Your task to perform on an android device: toggle location history Image 0: 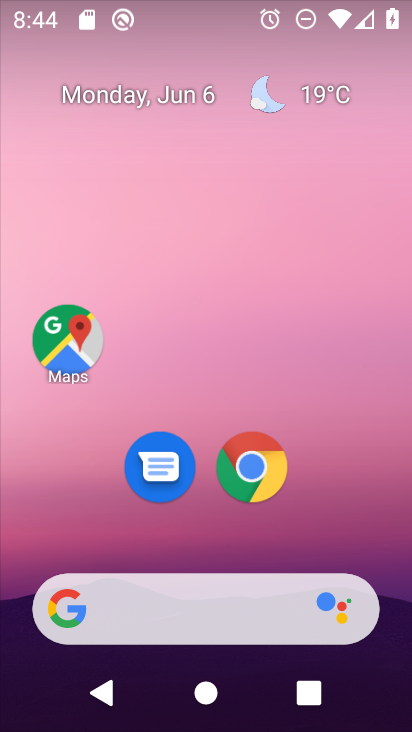
Step 0: drag from (341, 529) to (338, 154)
Your task to perform on an android device: toggle location history Image 1: 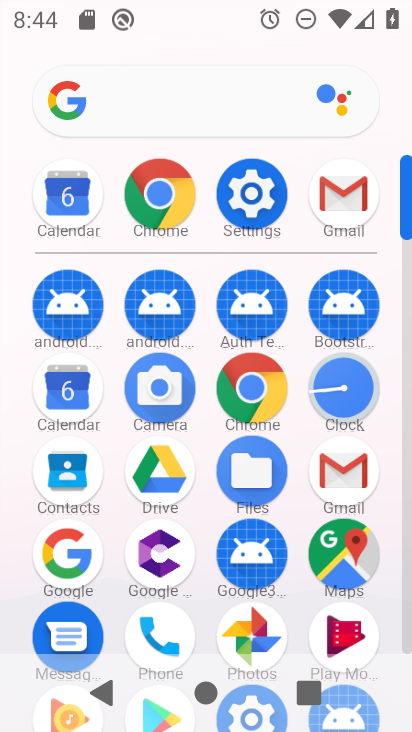
Step 1: click (262, 208)
Your task to perform on an android device: toggle location history Image 2: 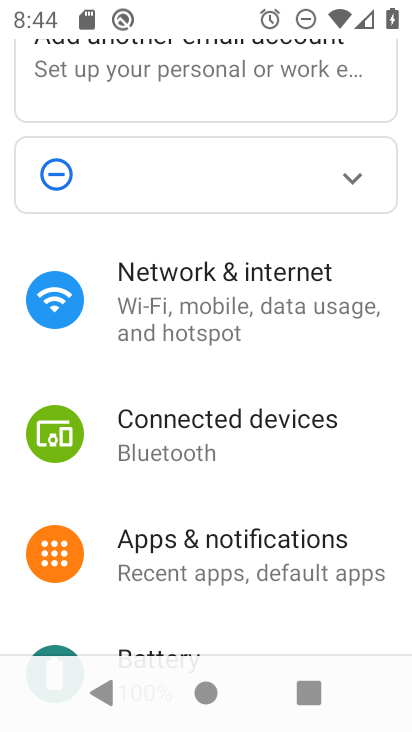
Step 2: drag from (331, 485) to (350, 354)
Your task to perform on an android device: toggle location history Image 3: 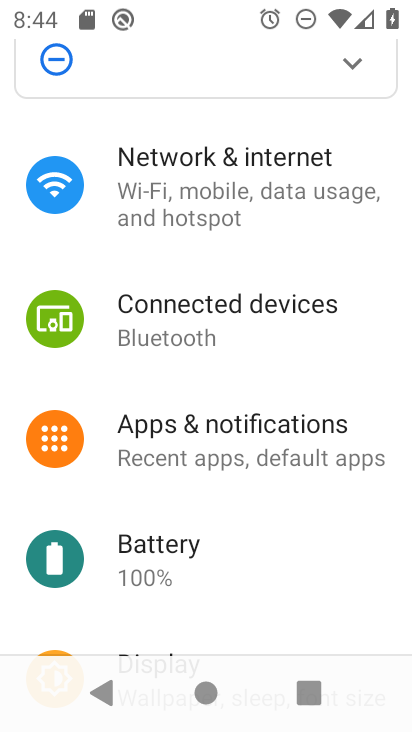
Step 3: drag from (372, 561) to (374, 407)
Your task to perform on an android device: toggle location history Image 4: 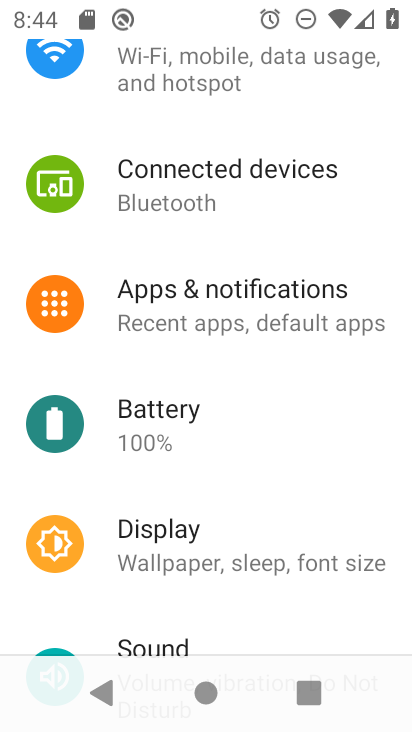
Step 4: drag from (374, 609) to (371, 447)
Your task to perform on an android device: toggle location history Image 5: 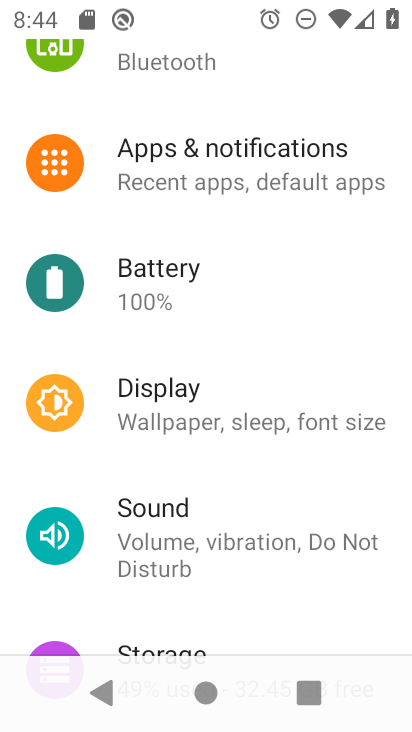
Step 5: drag from (355, 614) to (364, 431)
Your task to perform on an android device: toggle location history Image 6: 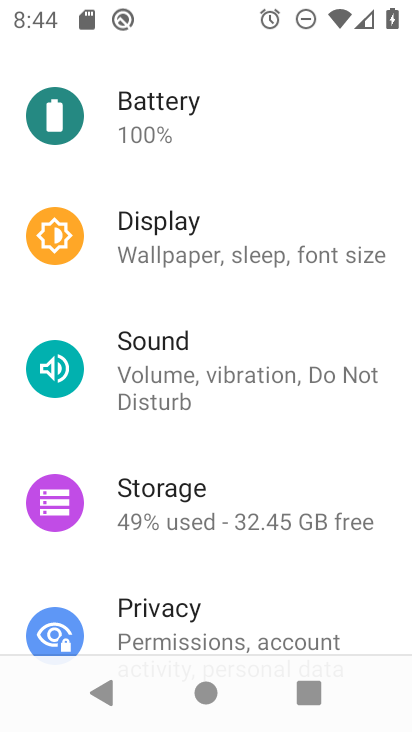
Step 6: drag from (378, 517) to (375, 404)
Your task to perform on an android device: toggle location history Image 7: 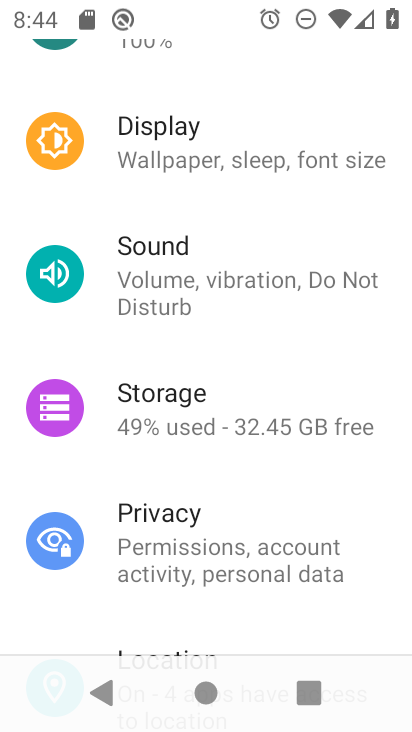
Step 7: drag from (350, 477) to (365, 328)
Your task to perform on an android device: toggle location history Image 8: 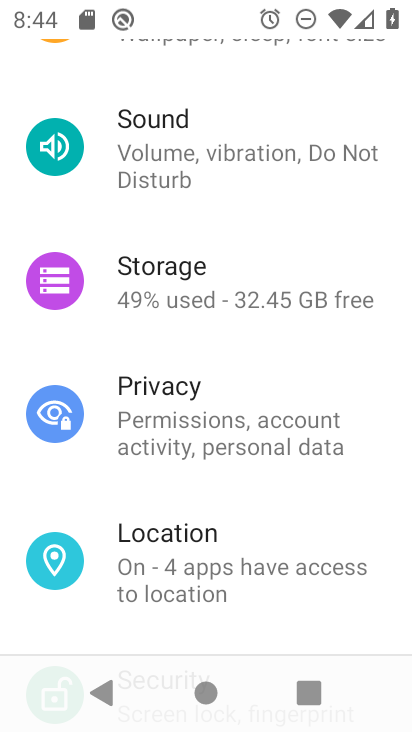
Step 8: drag from (332, 499) to (353, 356)
Your task to perform on an android device: toggle location history Image 9: 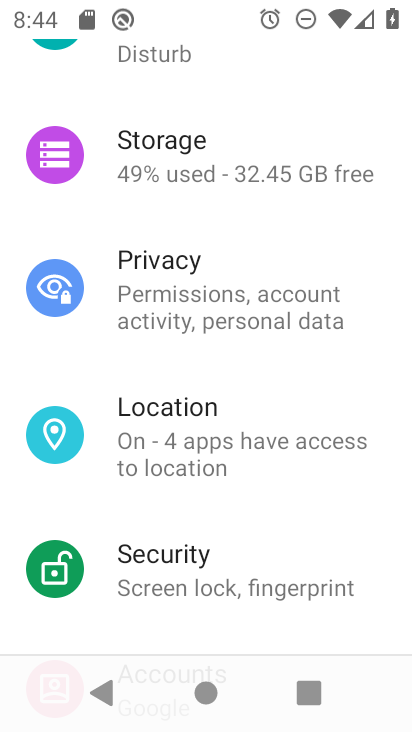
Step 9: drag from (362, 536) to (359, 366)
Your task to perform on an android device: toggle location history Image 10: 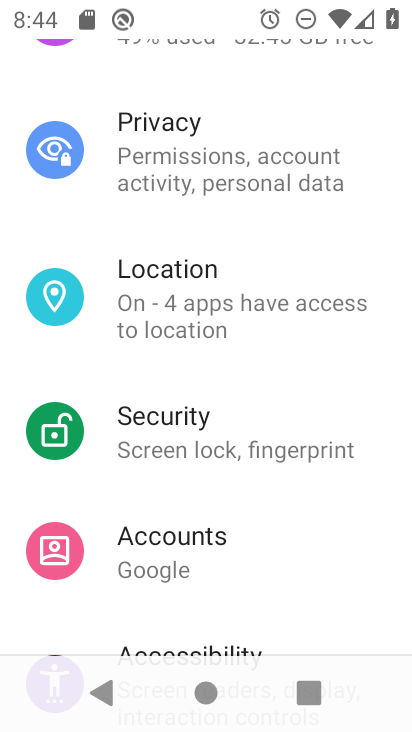
Step 10: drag from (385, 201) to (396, 361)
Your task to perform on an android device: toggle location history Image 11: 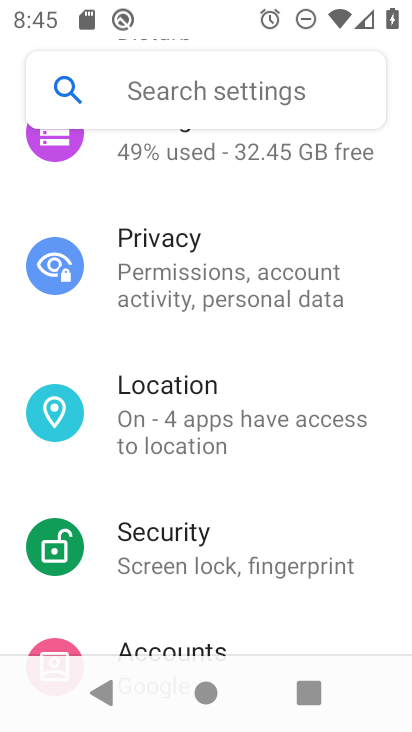
Step 11: drag from (371, 256) to (380, 370)
Your task to perform on an android device: toggle location history Image 12: 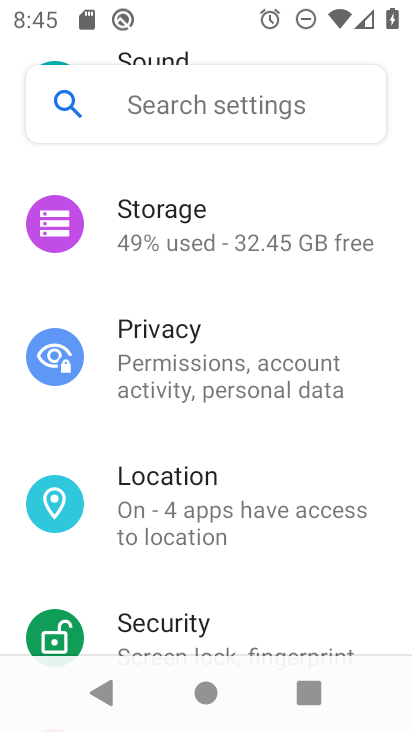
Step 12: click (301, 492)
Your task to perform on an android device: toggle location history Image 13: 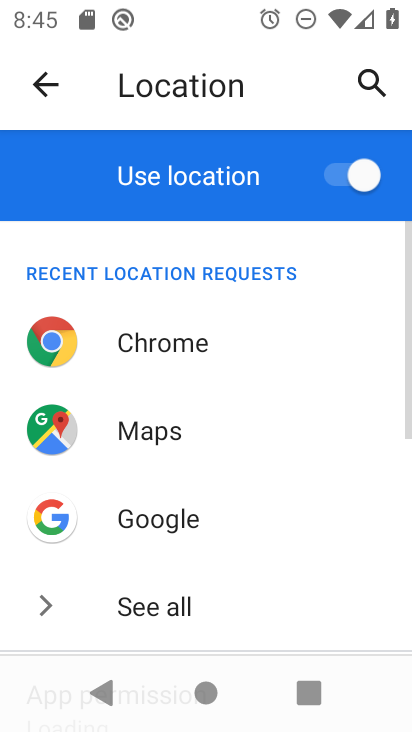
Step 13: drag from (289, 551) to (289, 386)
Your task to perform on an android device: toggle location history Image 14: 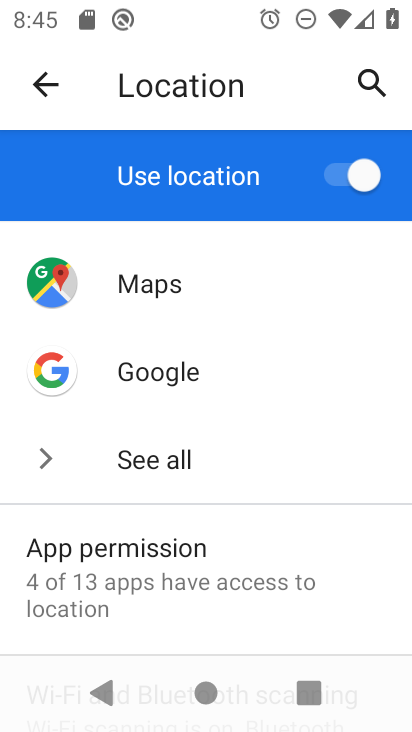
Step 14: drag from (314, 570) to (311, 390)
Your task to perform on an android device: toggle location history Image 15: 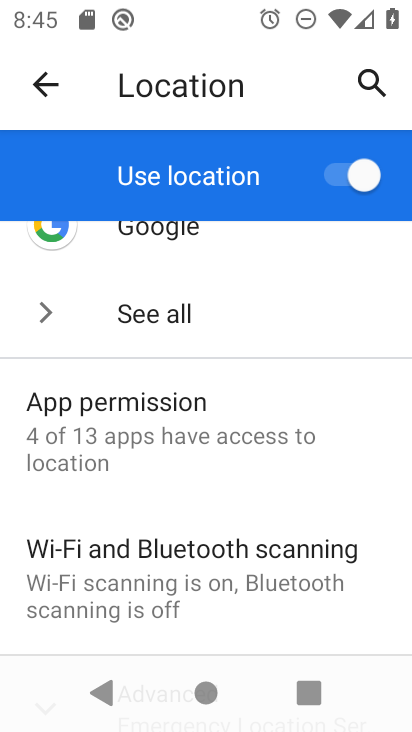
Step 15: drag from (333, 590) to (335, 457)
Your task to perform on an android device: toggle location history Image 16: 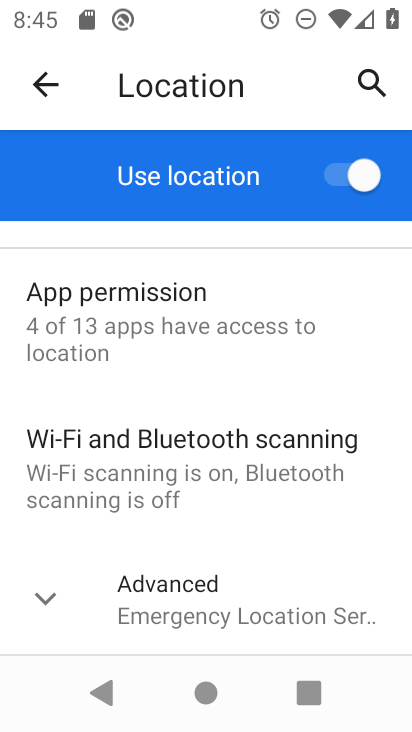
Step 16: click (315, 606)
Your task to perform on an android device: toggle location history Image 17: 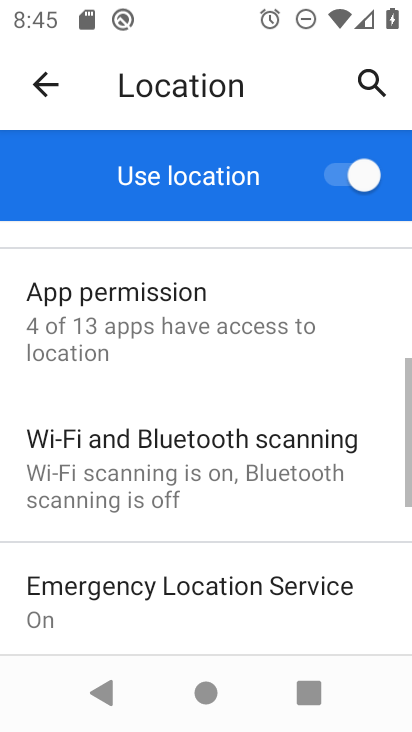
Step 17: drag from (343, 573) to (346, 411)
Your task to perform on an android device: toggle location history Image 18: 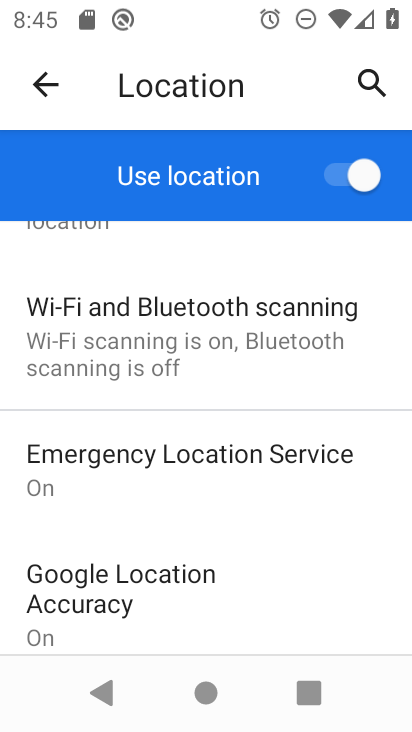
Step 18: drag from (352, 599) to (352, 452)
Your task to perform on an android device: toggle location history Image 19: 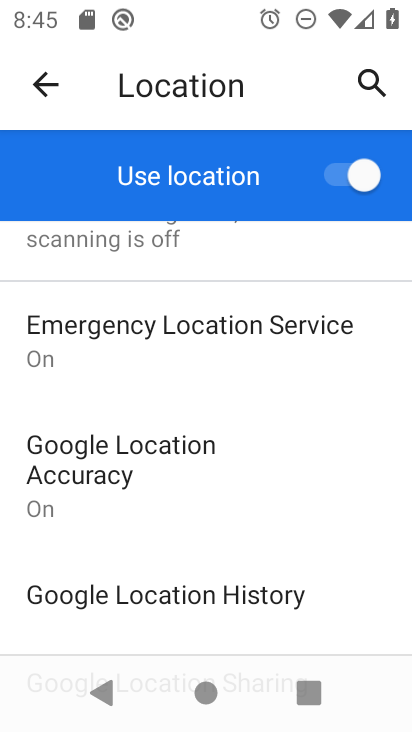
Step 19: drag from (310, 475) to (314, 350)
Your task to perform on an android device: toggle location history Image 20: 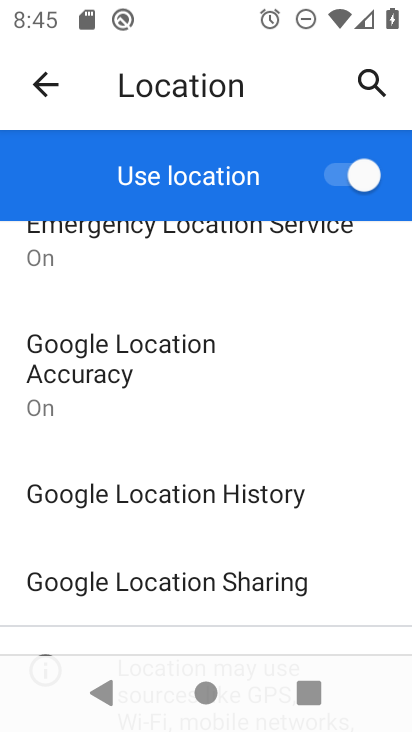
Step 20: click (262, 502)
Your task to perform on an android device: toggle location history Image 21: 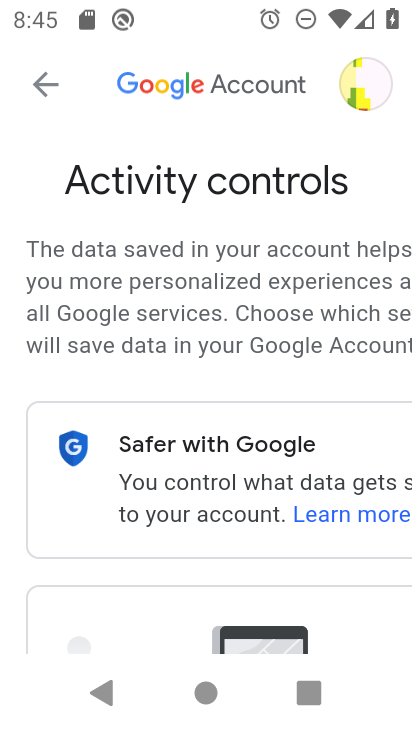
Step 21: drag from (189, 496) to (190, 379)
Your task to perform on an android device: toggle location history Image 22: 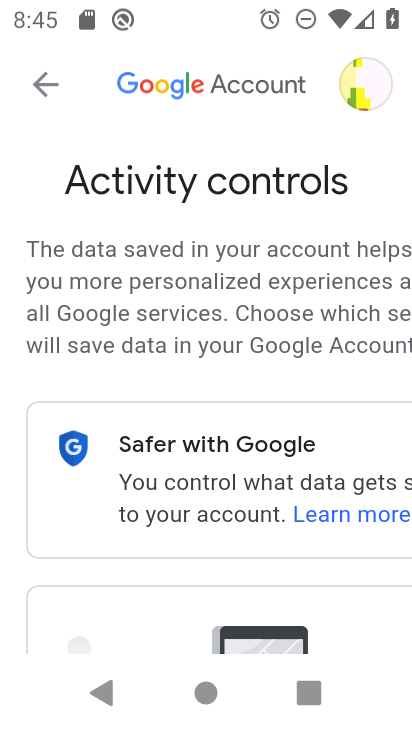
Step 22: drag from (180, 589) to (176, 320)
Your task to perform on an android device: toggle location history Image 23: 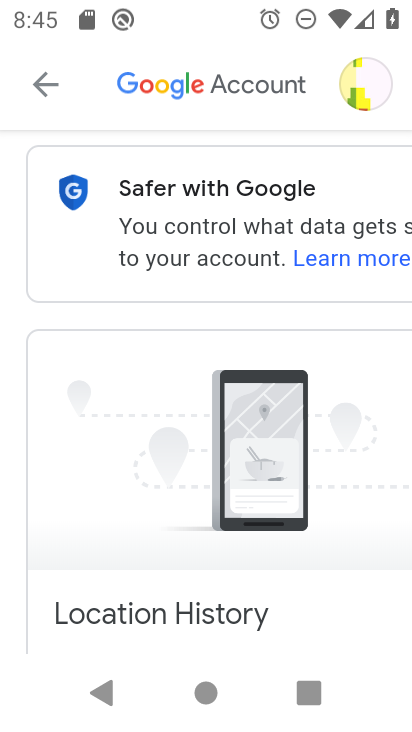
Step 23: drag from (238, 558) to (233, 298)
Your task to perform on an android device: toggle location history Image 24: 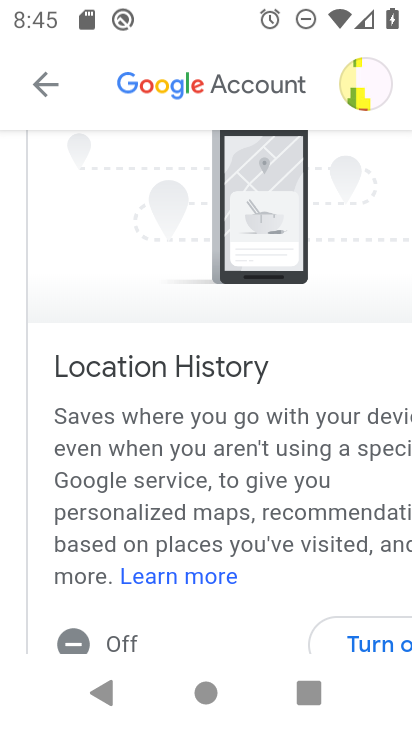
Step 24: drag from (255, 498) to (249, 315)
Your task to perform on an android device: toggle location history Image 25: 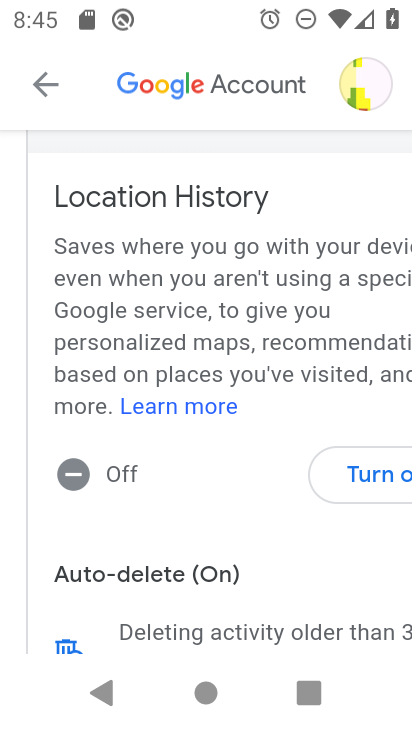
Step 25: click (360, 474)
Your task to perform on an android device: toggle location history Image 26: 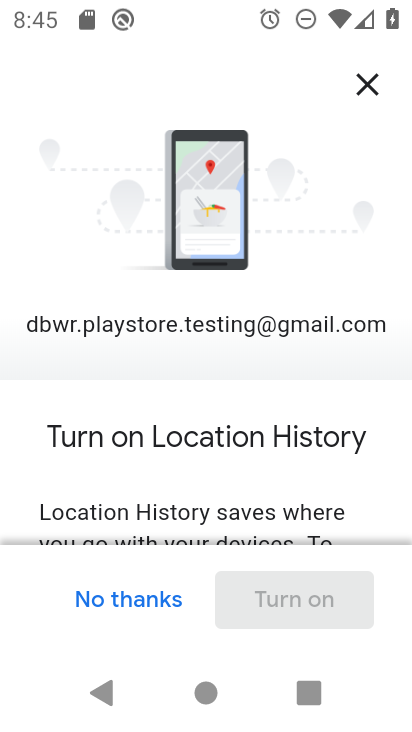
Step 26: drag from (225, 489) to (237, 345)
Your task to perform on an android device: toggle location history Image 27: 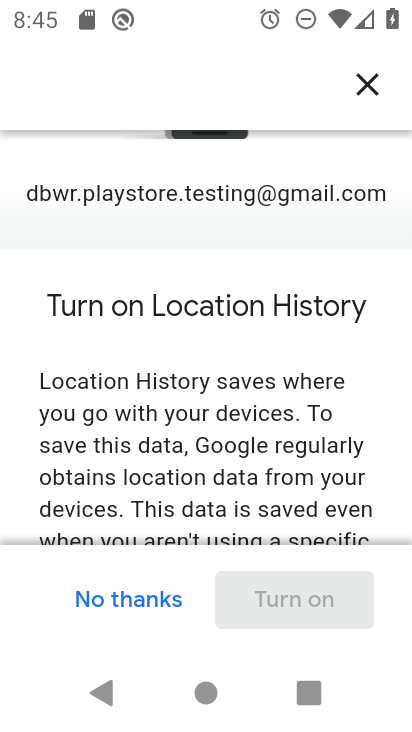
Step 27: drag from (181, 429) to (194, 306)
Your task to perform on an android device: toggle location history Image 28: 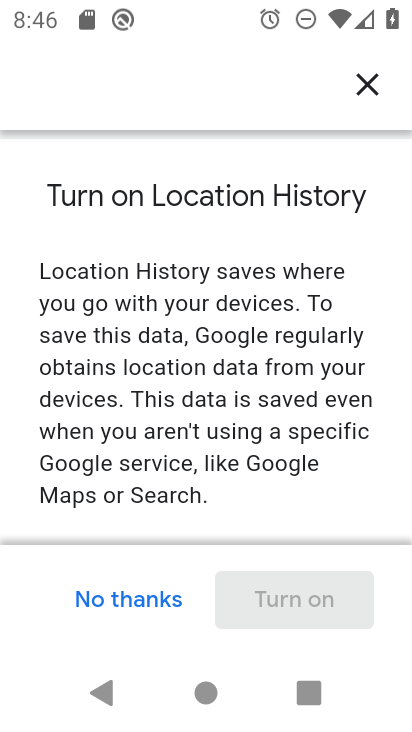
Step 28: drag from (255, 475) to (254, 289)
Your task to perform on an android device: toggle location history Image 29: 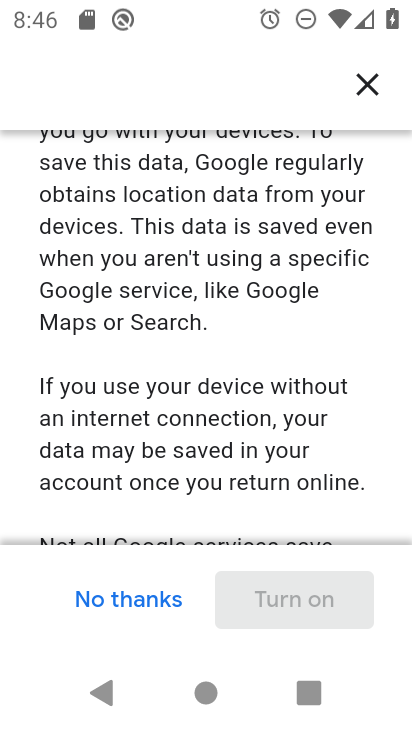
Step 29: drag from (258, 474) to (259, 279)
Your task to perform on an android device: toggle location history Image 30: 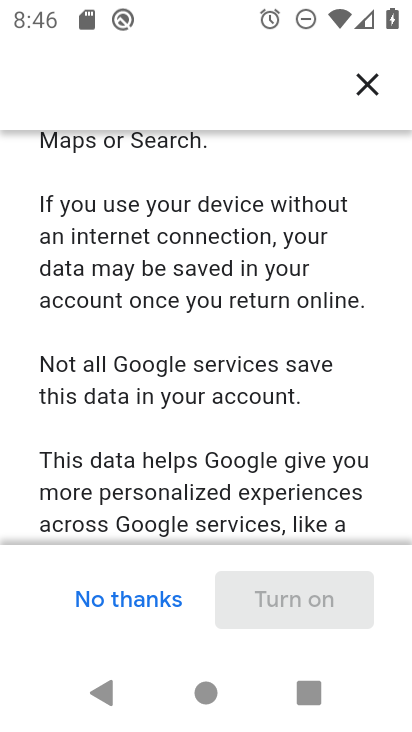
Step 30: drag from (256, 469) to (252, 302)
Your task to perform on an android device: toggle location history Image 31: 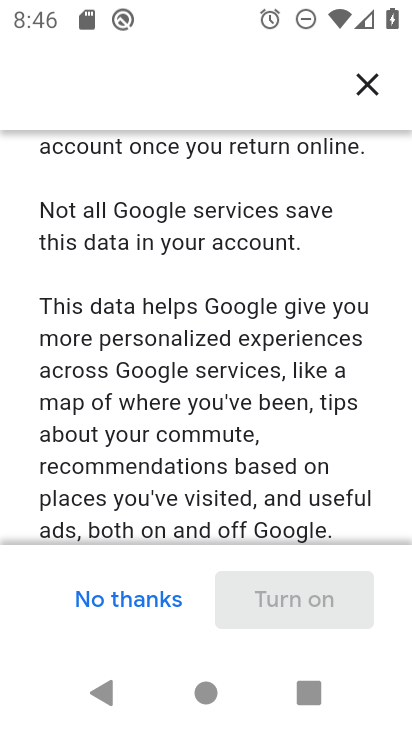
Step 31: drag from (249, 486) to (250, 274)
Your task to perform on an android device: toggle location history Image 32: 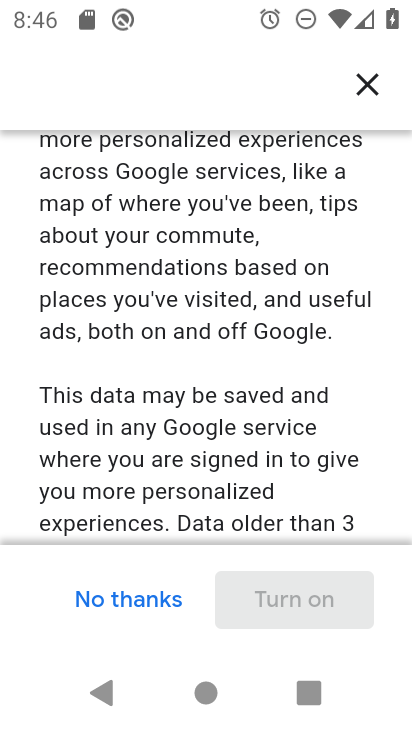
Step 32: drag from (248, 491) to (241, 279)
Your task to perform on an android device: toggle location history Image 33: 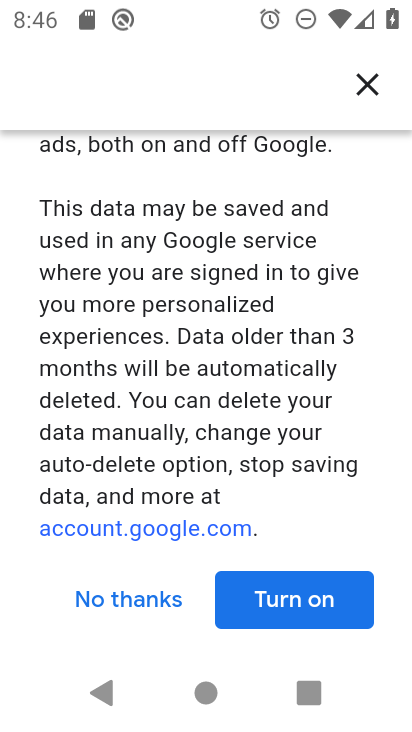
Step 33: click (284, 602)
Your task to perform on an android device: toggle location history Image 34: 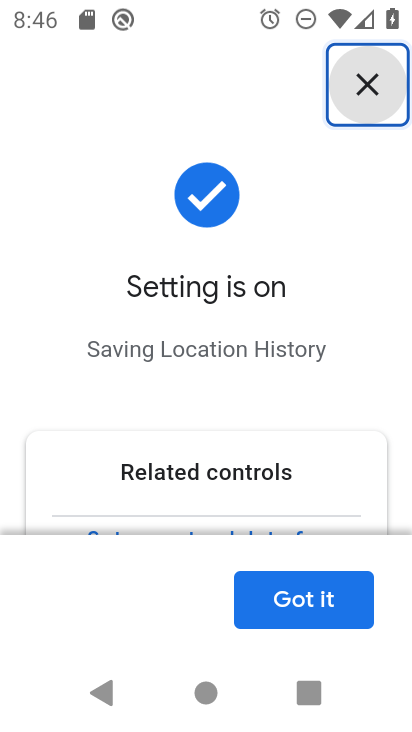
Step 34: task complete